Your task to perform on an android device: What's the weather today? Image 0: 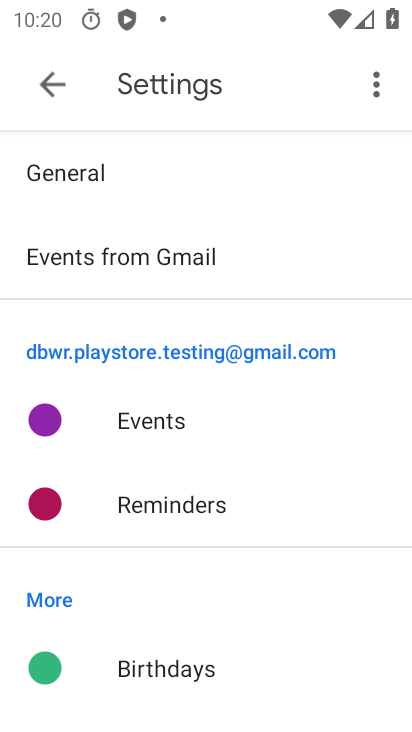
Step 0: press home button
Your task to perform on an android device: What's the weather today? Image 1: 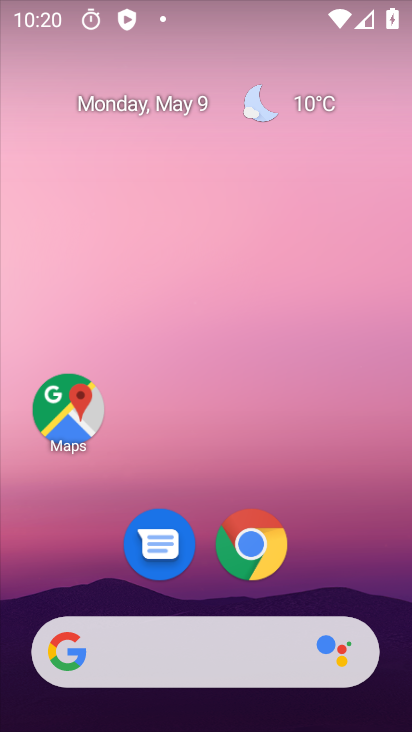
Step 1: click (296, 99)
Your task to perform on an android device: What's the weather today? Image 2: 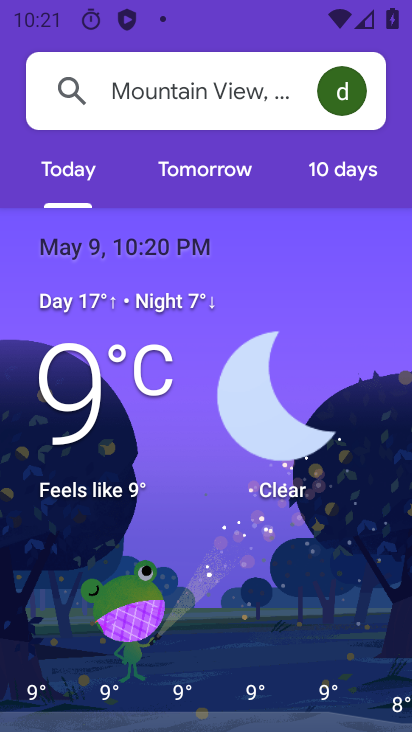
Step 2: task complete